Your task to perform on an android device: check the backup settings in the google photos Image 0: 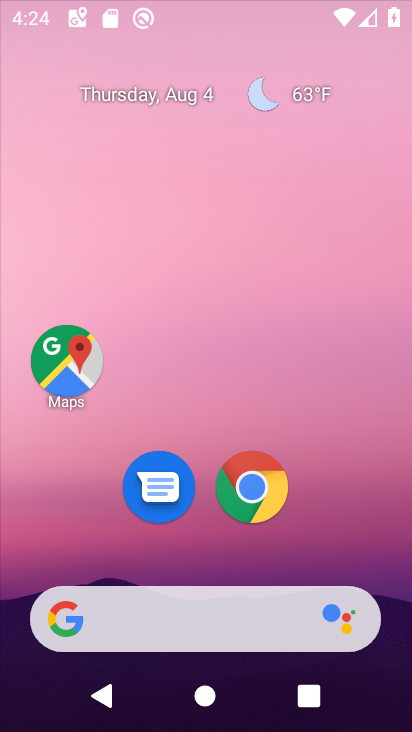
Step 0: drag from (94, 456) to (194, 47)
Your task to perform on an android device: check the backup settings in the google photos Image 1: 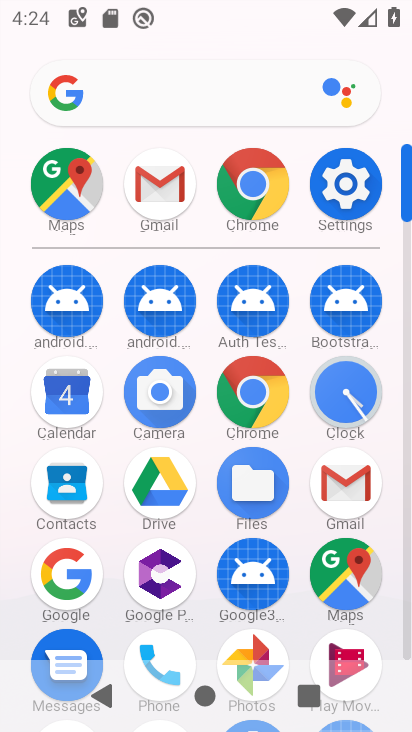
Step 1: click (259, 639)
Your task to perform on an android device: check the backup settings in the google photos Image 2: 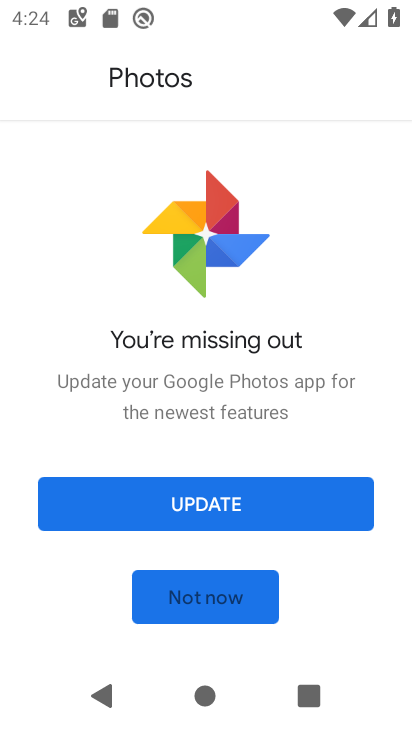
Step 2: click (202, 591)
Your task to perform on an android device: check the backup settings in the google photos Image 3: 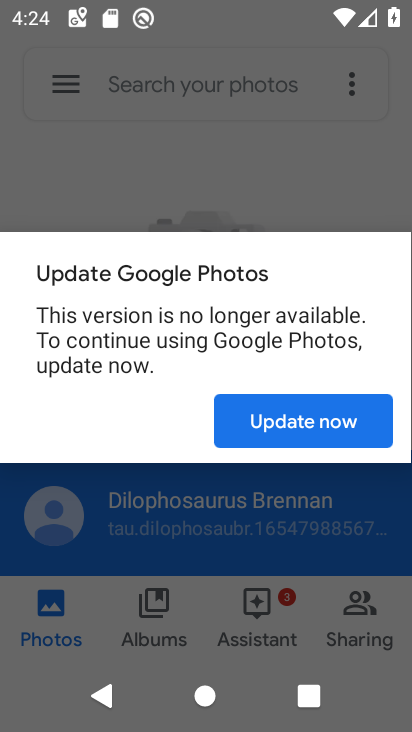
Step 3: click (269, 415)
Your task to perform on an android device: check the backup settings in the google photos Image 4: 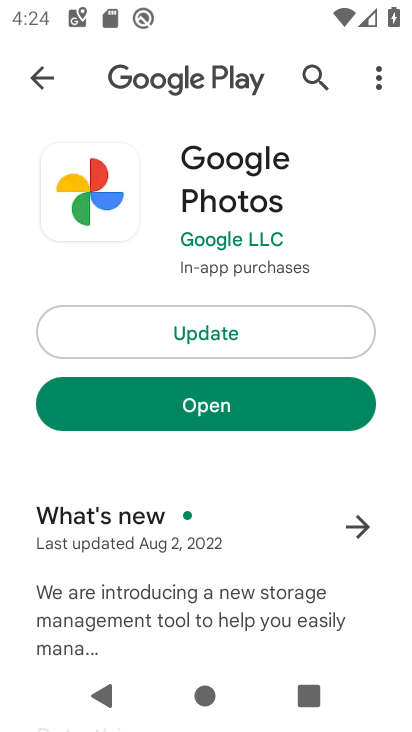
Step 4: click (199, 414)
Your task to perform on an android device: check the backup settings in the google photos Image 5: 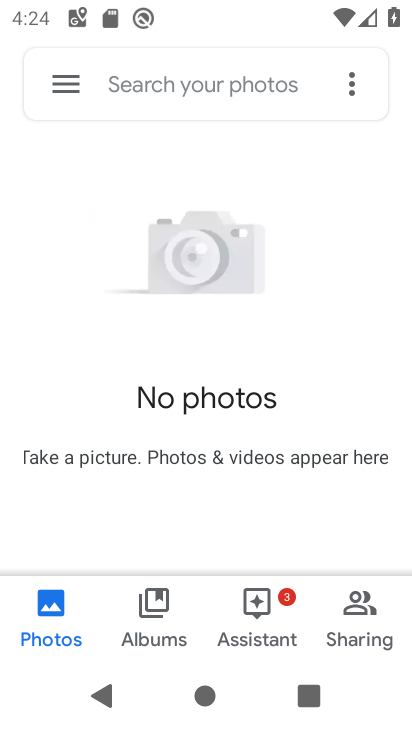
Step 5: click (90, 77)
Your task to perform on an android device: check the backup settings in the google photos Image 6: 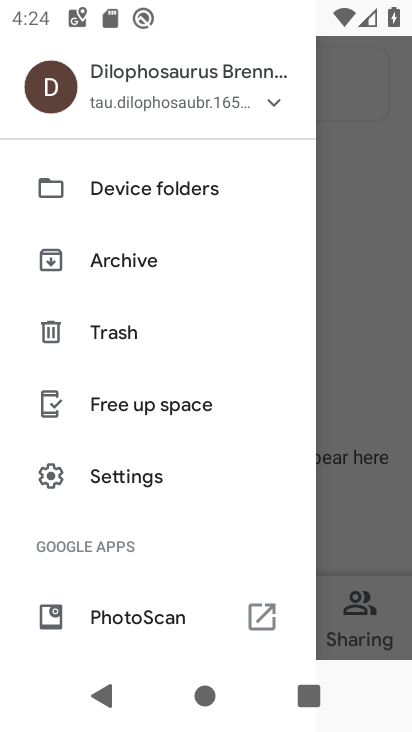
Step 6: click (123, 479)
Your task to perform on an android device: check the backup settings in the google photos Image 7: 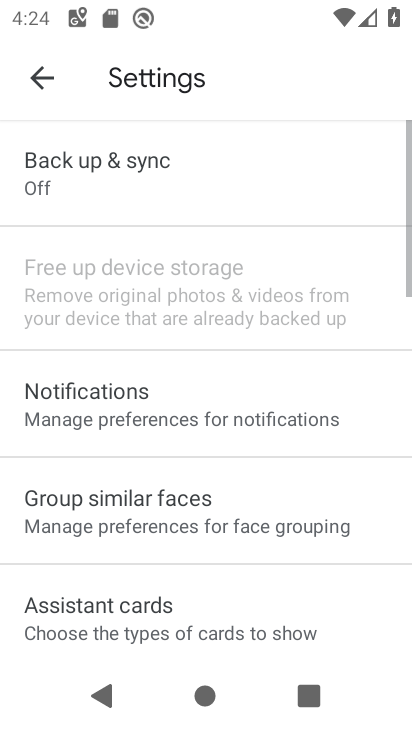
Step 7: click (75, 194)
Your task to perform on an android device: check the backup settings in the google photos Image 8: 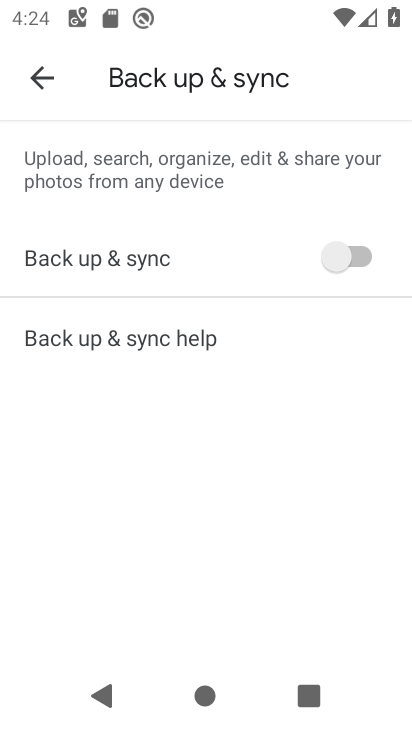
Step 8: task complete